Your task to perform on an android device: What is the news today? Image 0: 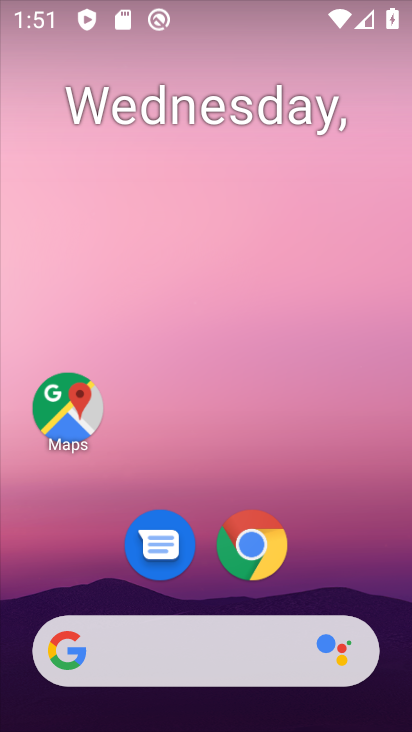
Step 0: drag from (301, 582) to (333, 168)
Your task to perform on an android device: What is the news today? Image 1: 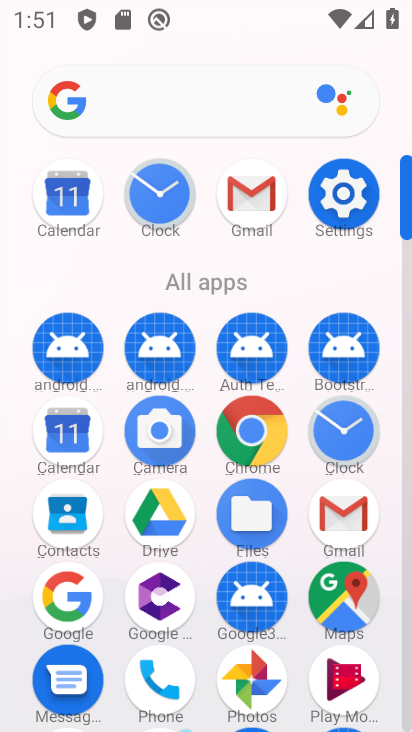
Step 1: click (77, 597)
Your task to perform on an android device: What is the news today? Image 2: 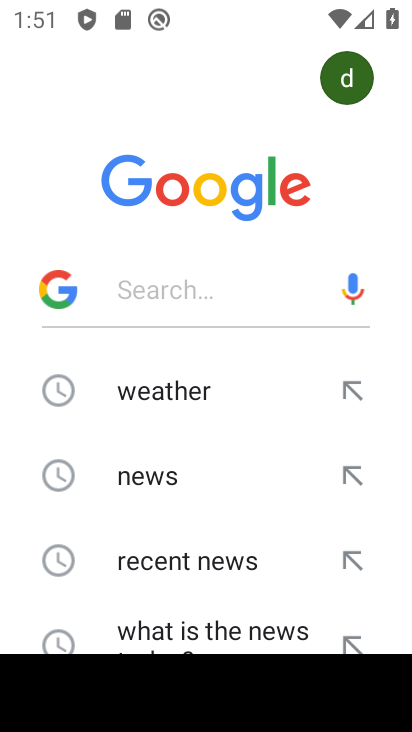
Step 2: click (198, 481)
Your task to perform on an android device: What is the news today? Image 3: 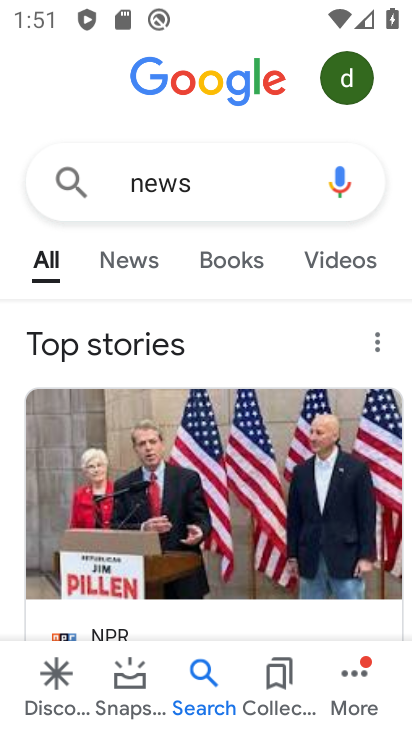
Step 3: task complete